Your task to perform on an android device: Find coffee shops on Maps Image 0: 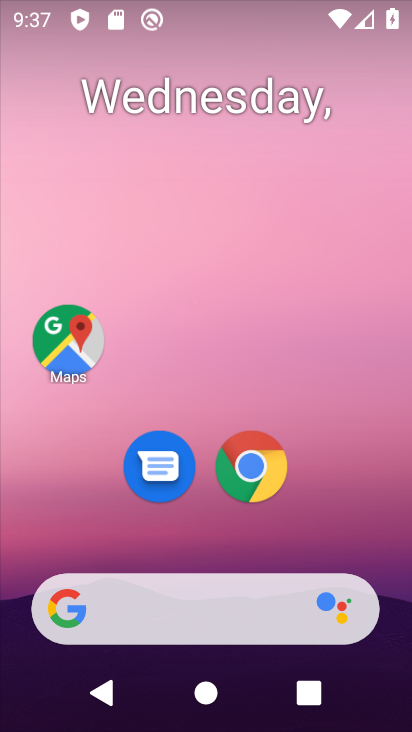
Step 0: drag from (362, 312) to (371, 2)
Your task to perform on an android device: Find coffee shops on Maps Image 1: 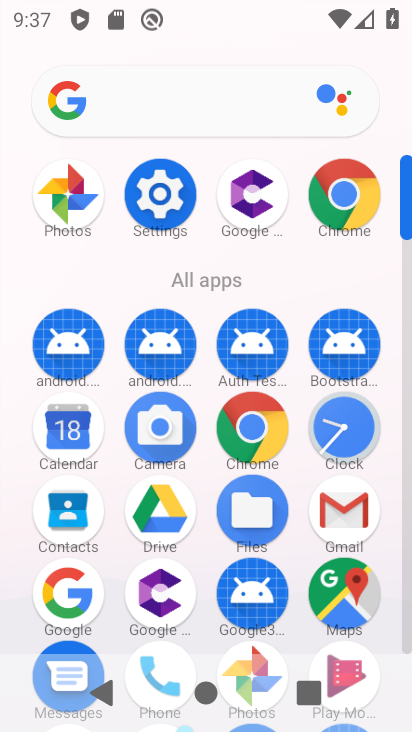
Step 1: click (361, 176)
Your task to perform on an android device: Find coffee shops on Maps Image 2: 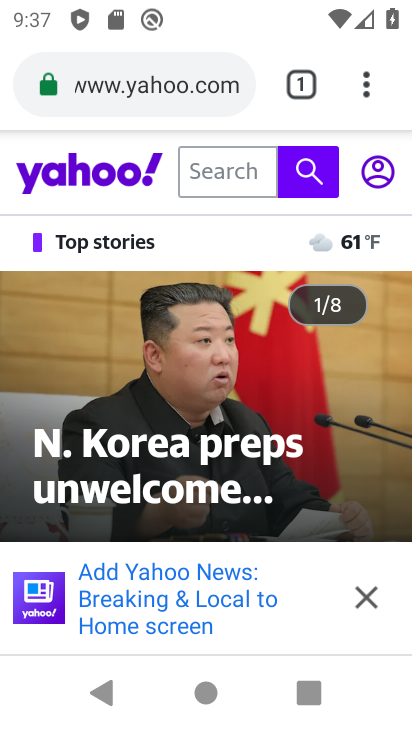
Step 2: click (145, 84)
Your task to perform on an android device: Find coffee shops on Maps Image 3: 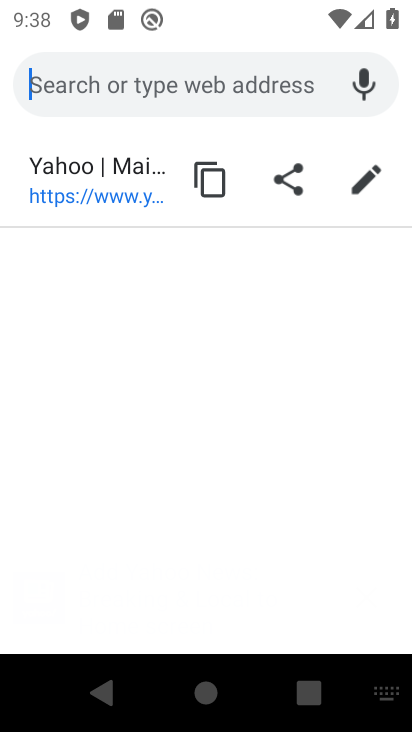
Step 3: type "coffee"
Your task to perform on an android device: Find coffee shops on Maps Image 4: 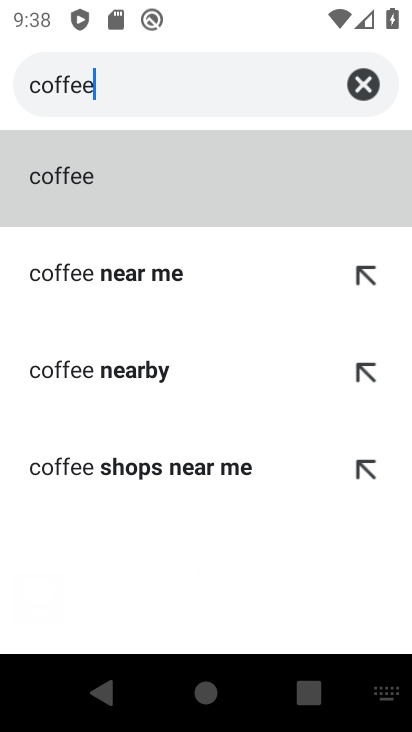
Step 4: click (93, 224)
Your task to perform on an android device: Find coffee shops on Maps Image 5: 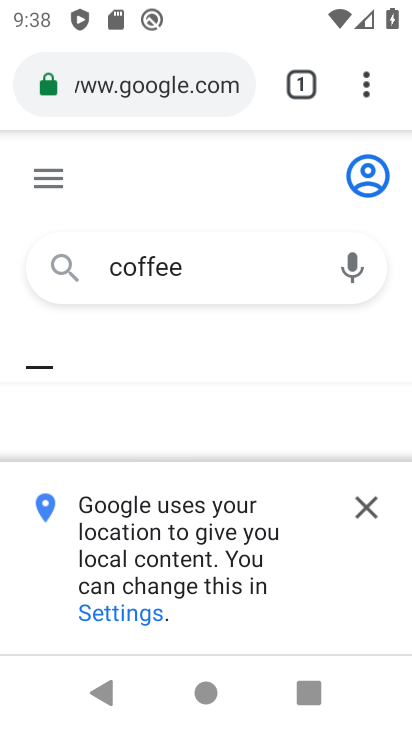
Step 5: click (366, 487)
Your task to perform on an android device: Find coffee shops on Maps Image 6: 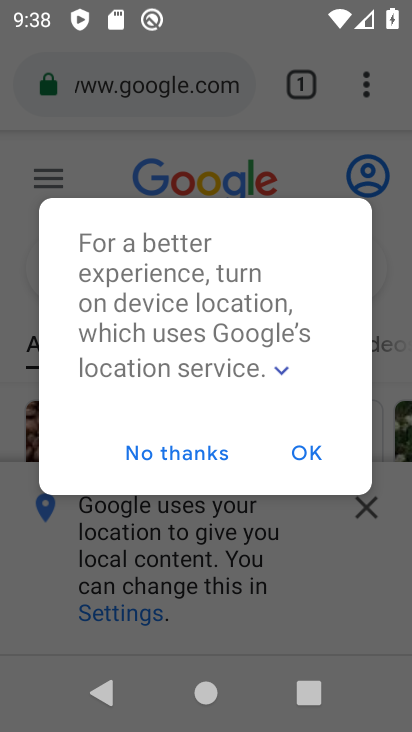
Step 6: click (185, 447)
Your task to perform on an android device: Find coffee shops on Maps Image 7: 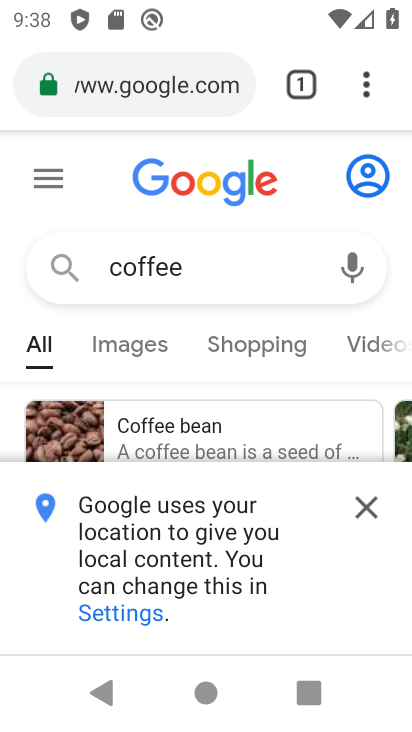
Step 7: click (367, 504)
Your task to perform on an android device: Find coffee shops on Maps Image 8: 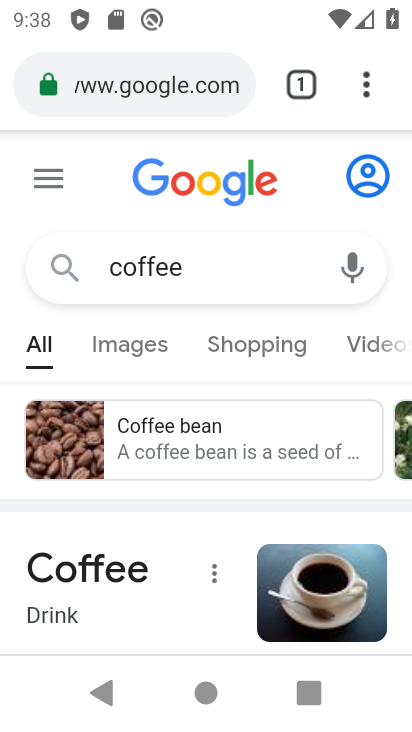
Step 8: task complete